Your task to perform on an android device: delete location history Image 0: 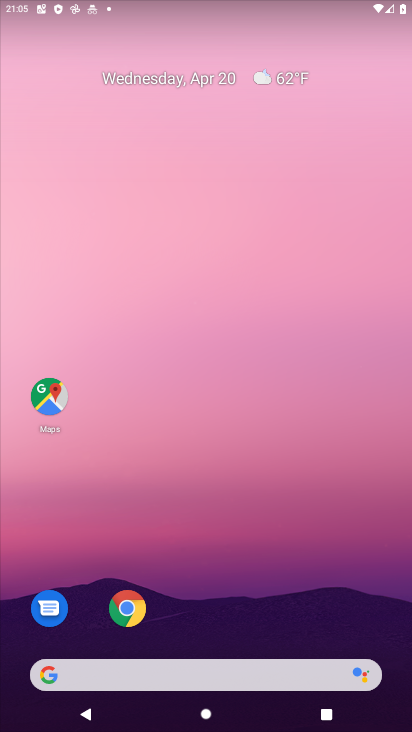
Step 0: drag from (296, 566) to (290, 106)
Your task to perform on an android device: delete location history Image 1: 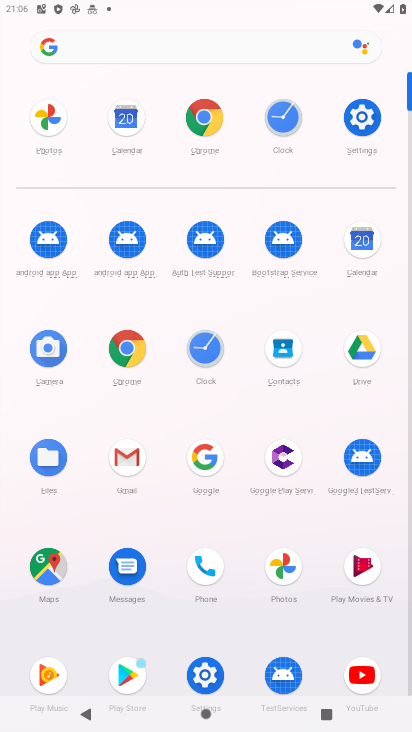
Step 1: click (44, 587)
Your task to perform on an android device: delete location history Image 2: 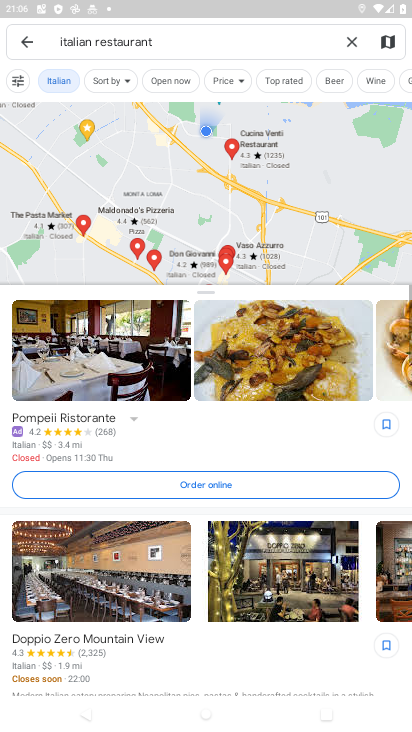
Step 2: click (24, 39)
Your task to perform on an android device: delete location history Image 3: 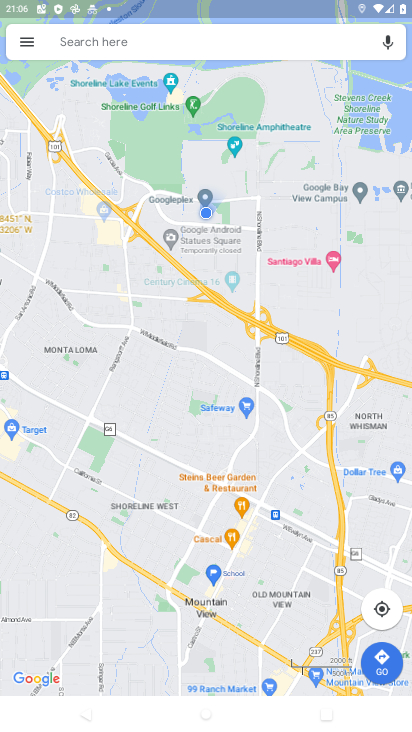
Step 3: click (24, 39)
Your task to perform on an android device: delete location history Image 4: 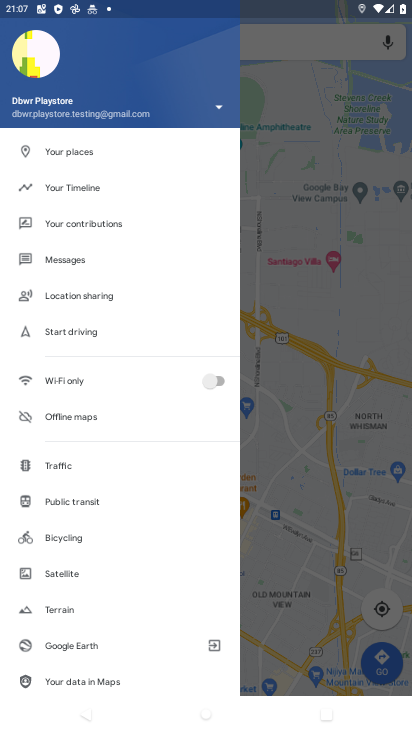
Step 4: click (95, 181)
Your task to perform on an android device: delete location history Image 5: 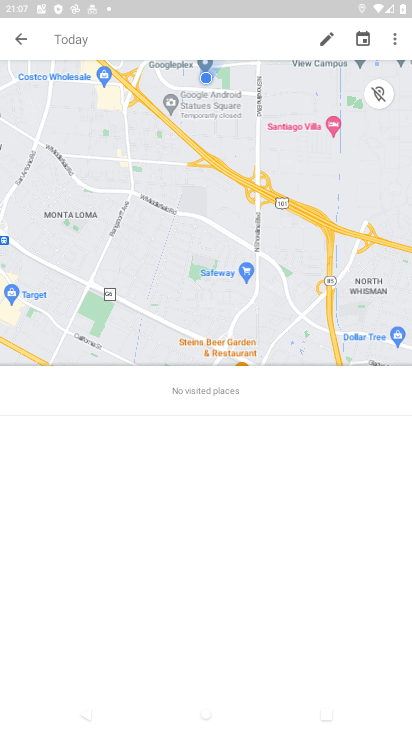
Step 5: click (397, 38)
Your task to perform on an android device: delete location history Image 6: 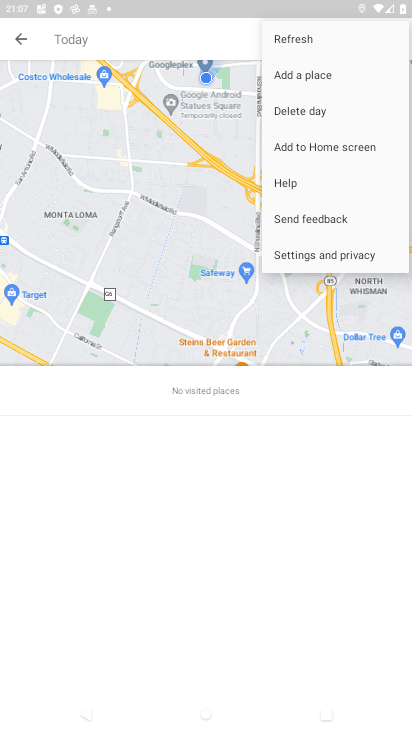
Step 6: click (336, 261)
Your task to perform on an android device: delete location history Image 7: 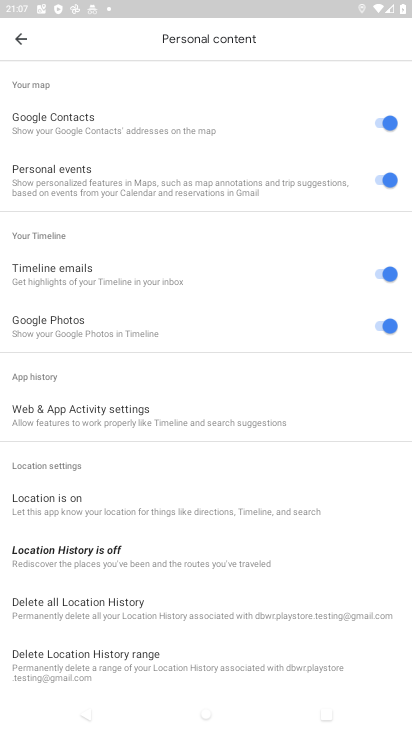
Step 7: drag from (217, 647) to (189, 12)
Your task to perform on an android device: delete location history Image 8: 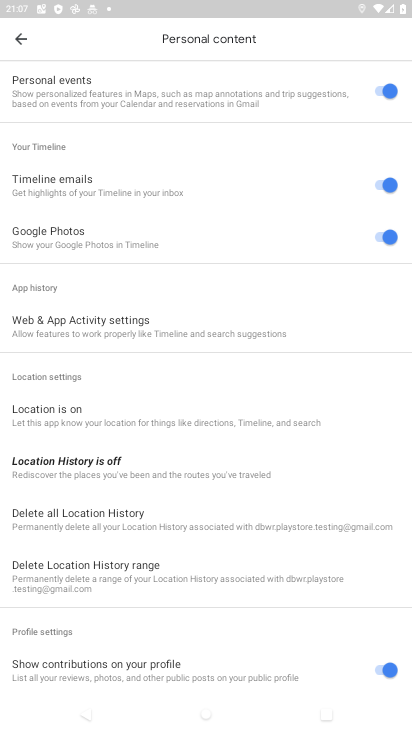
Step 8: click (91, 530)
Your task to perform on an android device: delete location history Image 9: 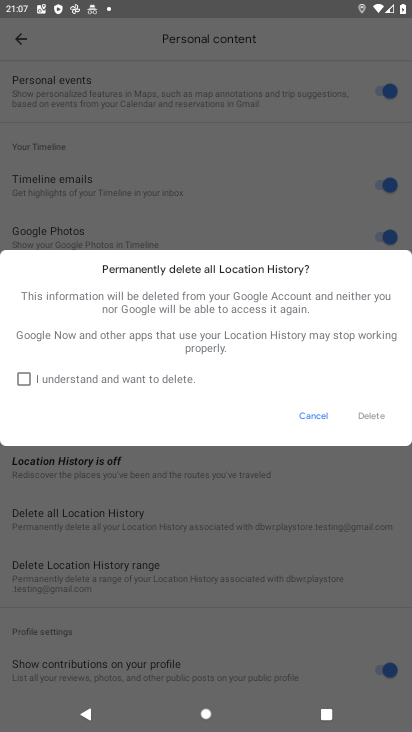
Step 9: click (199, 375)
Your task to perform on an android device: delete location history Image 10: 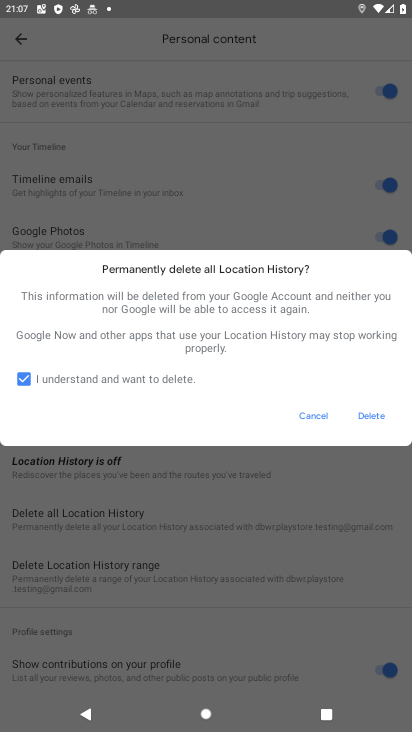
Step 10: click (361, 422)
Your task to perform on an android device: delete location history Image 11: 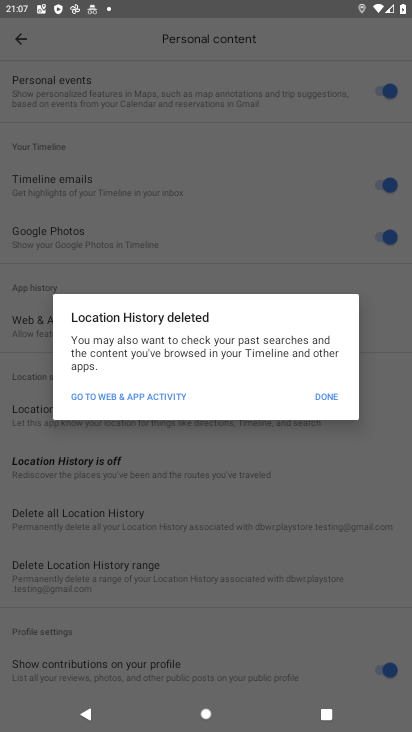
Step 11: task complete